Your task to perform on an android device: Search for Mexican restaurants on Maps Image 0: 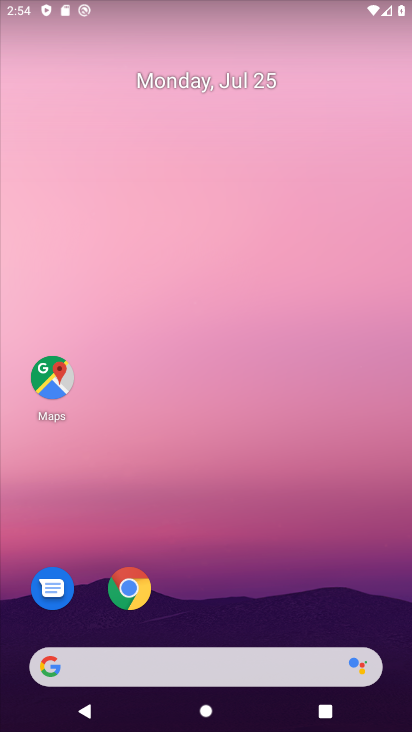
Step 0: drag from (202, 587) to (226, 6)
Your task to perform on an android device: Search for Mexican restaurants on Maps Image 1: 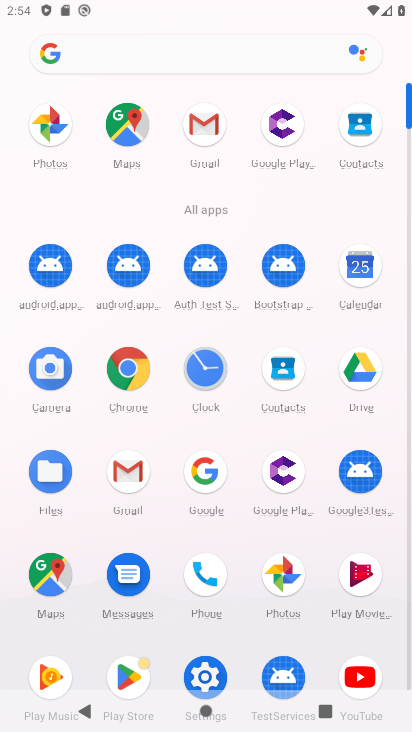
Step 1: click (64, 572)
Your task to perform on an android device: Search for Mexican restaurants on Maps Image 2: 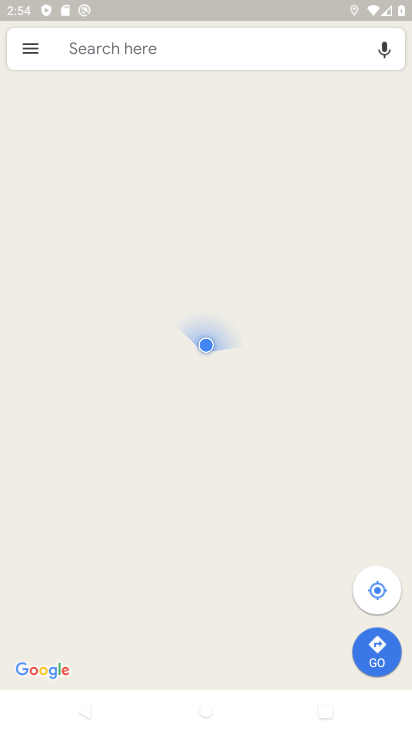
Step 2: click (198, 44)
Your task to perform on an android device: Search for Mexican restaurants on Maps Image 3: 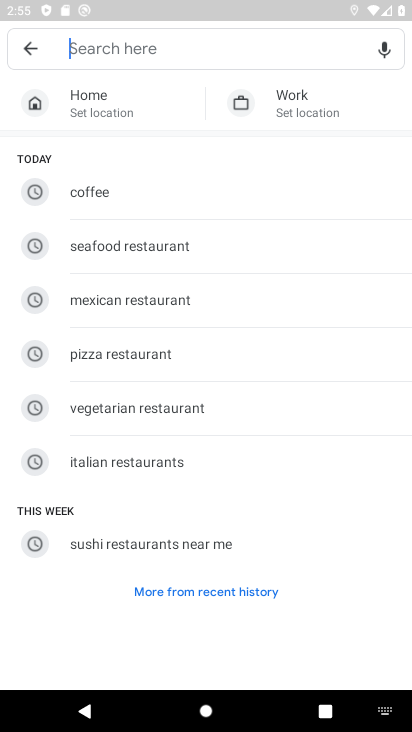
Step 3: type "Mexican restaurants"
Your task to perform on an android device: Search for Mexican restaurants on Maps Image 4: 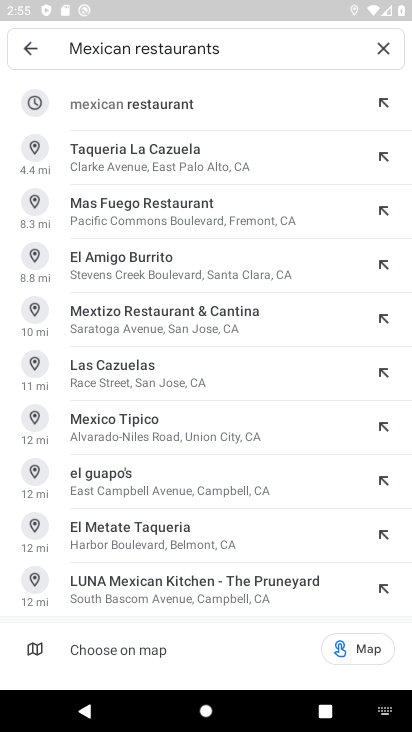
Step 4: press enter
Your task to perform on an android device: Search for Mexican restaurants on Maps Image 5: 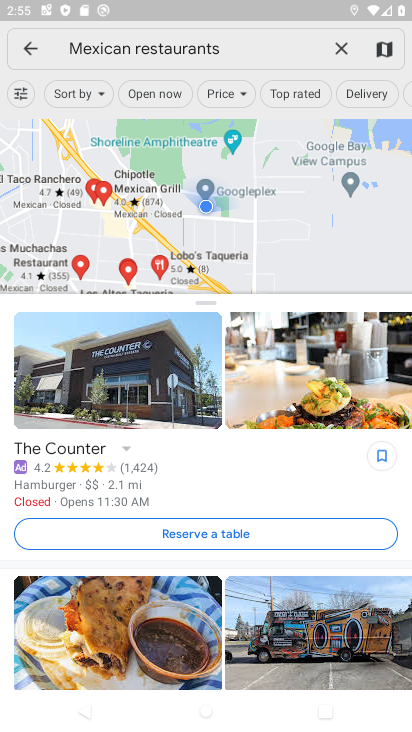
Step 5: task complete